Your task to perform on an android device: Open calendar and show me the first week of next month Image 0: 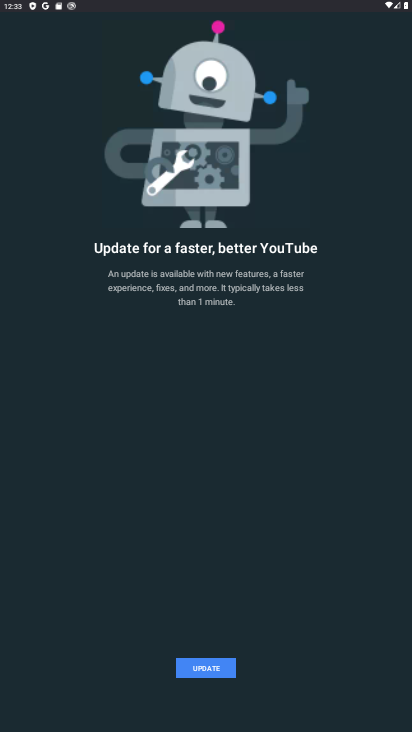
Step 0: press home button
Your task to perform on an android device: Open calendar and show me the first week of next month Image 1: 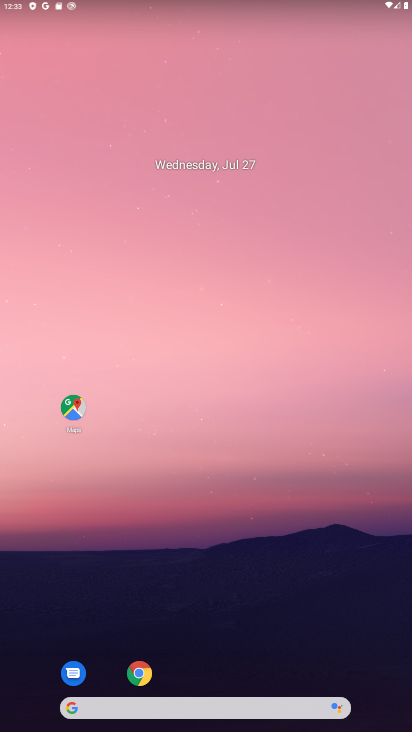
Step 1: drag from (294, 679) to (236, 0)
Your task to perform on an android device: Open calendar and show me the first week of next month Image 2: 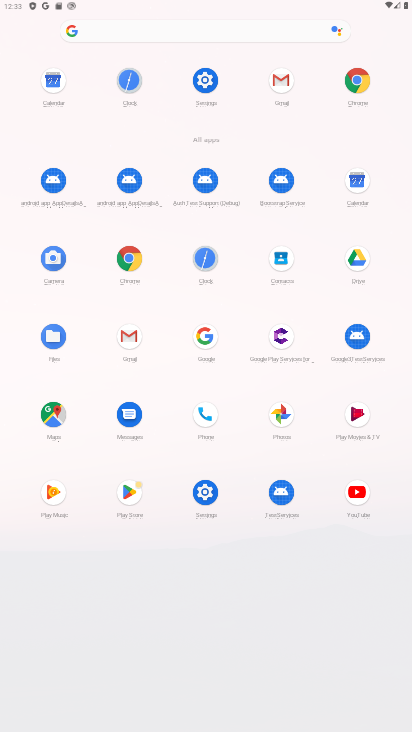
Step 2: click (361, 189)
Your task to perform on an android device: Open calendar and show me the first week of next month Image 3: 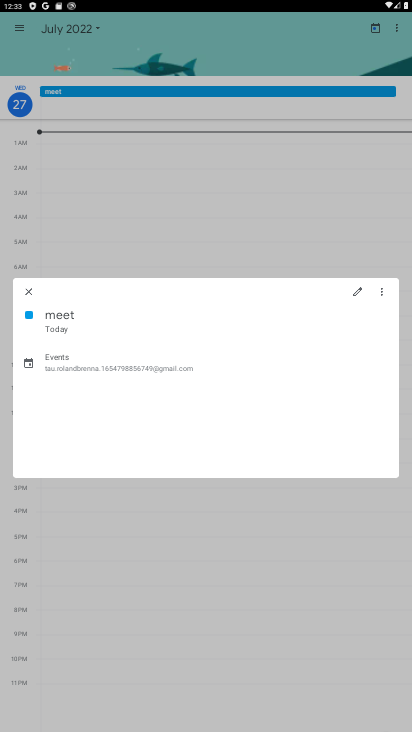
Step 3: click (27, 289)
Your task to perform on an android device: Open calendar and show me the first week of next month Image 4: 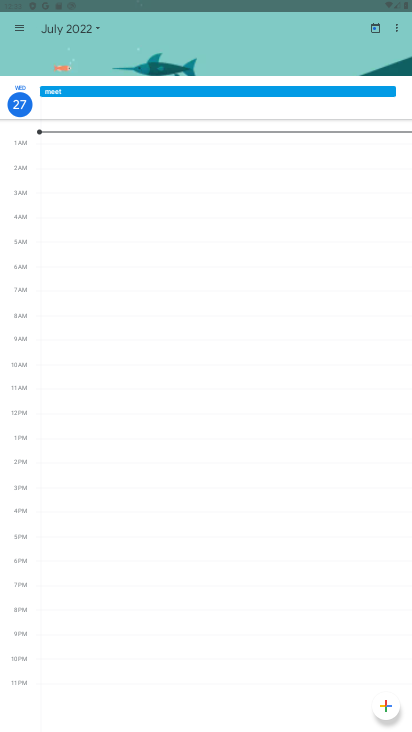
Step 4: click (99, 31)
Your task to perform on an android device: Open calendar and show me the first week of next month Image 5: 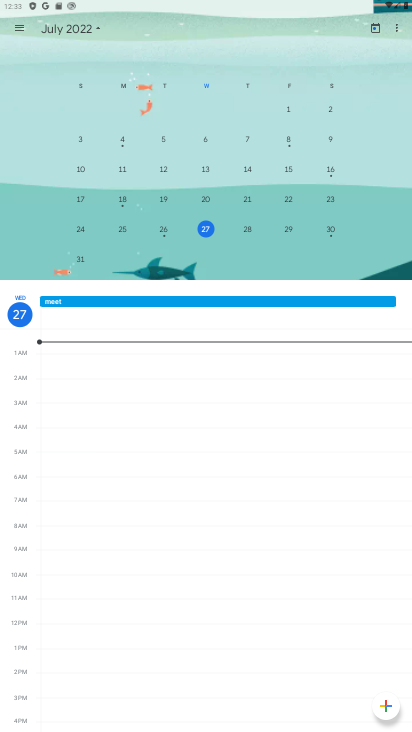
Step 5: drag from (302, 174) to (0, 159)
Your task to perform on an android device: Open calendar and show me the first week of next month Image 6: 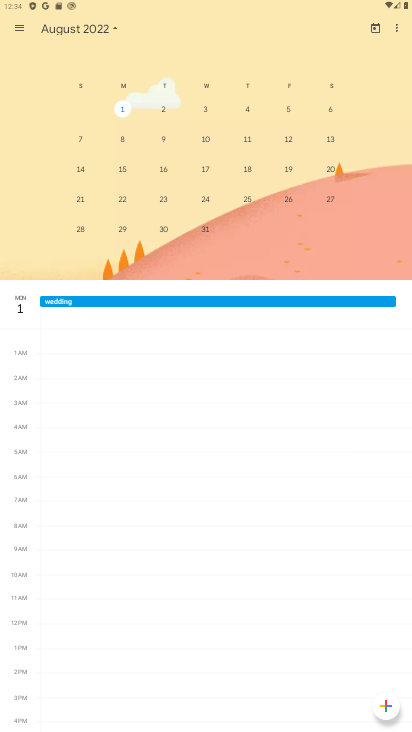
Step 6: click (12, 29)
Your task to perform on an android device: Open calendar and show me the first week of next month Image 7: 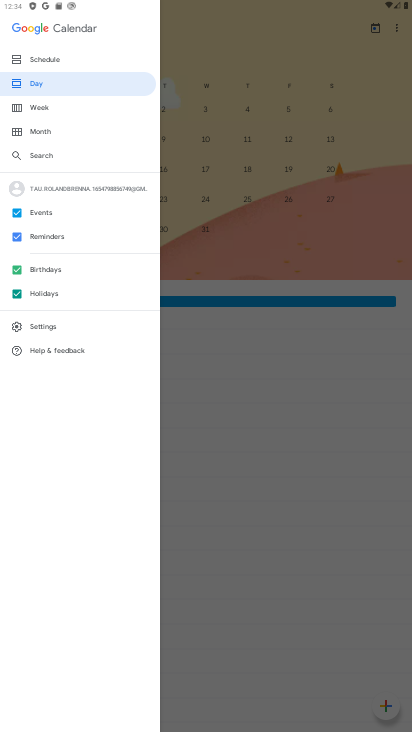
Step 7: click (26, 106)
Your task to perform on an android device: Open calendar and show me the first week of next month Image 8: 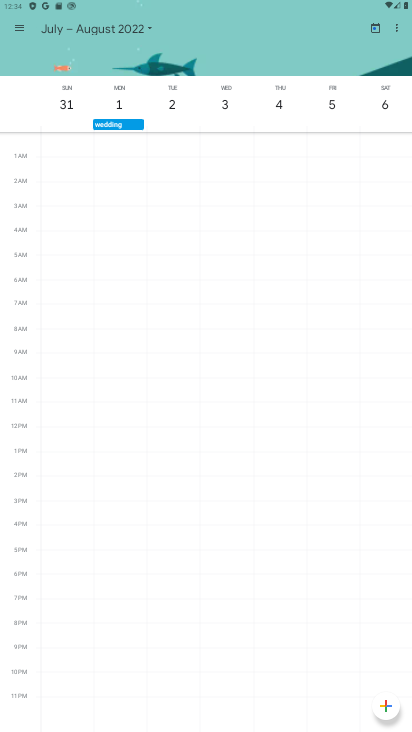
Step 8: task complete